Your task to perform on an android device: Show me the alarms in the clock app Image 0: 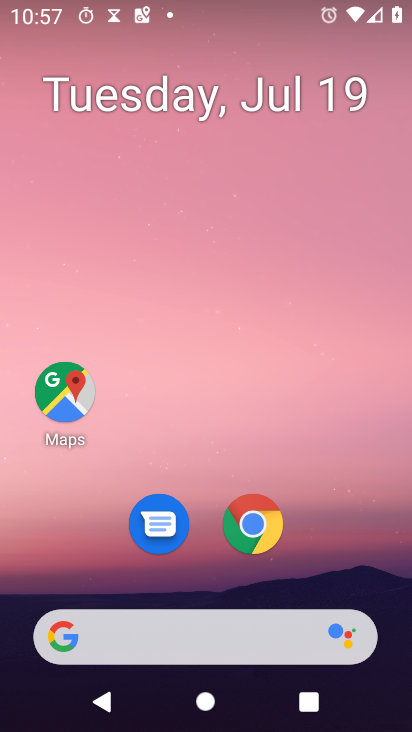
Step 0: drag from (234, 638) to (316, 135)
Your task to perform on an android device: Show me the alarms in the clock app Image 1: 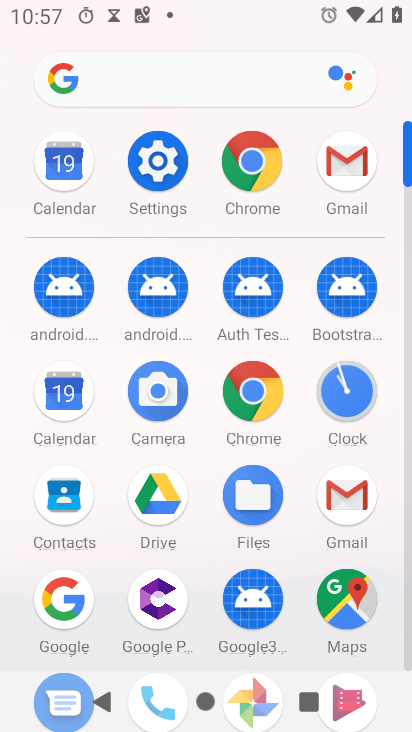
Step 1: click (341, 386)
Your task to perform on an android device: Show me the alarms in the clock app Image 2: 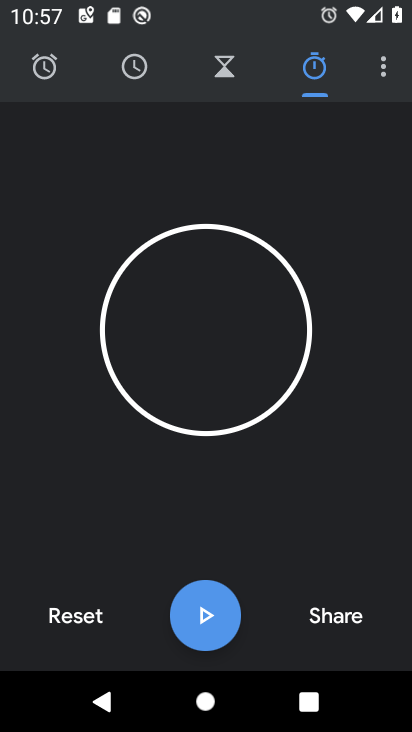
Step 2: click (49, 68)
Your task to perform on an android device: Show me the alarms in the clock app Image 3: 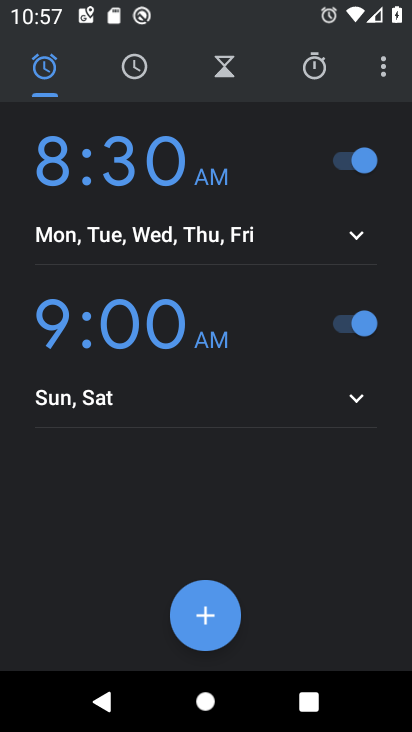
Step 3: task complete